Your task to perform on an android device: open the mobile data screen to see how much data has been used Image 0: 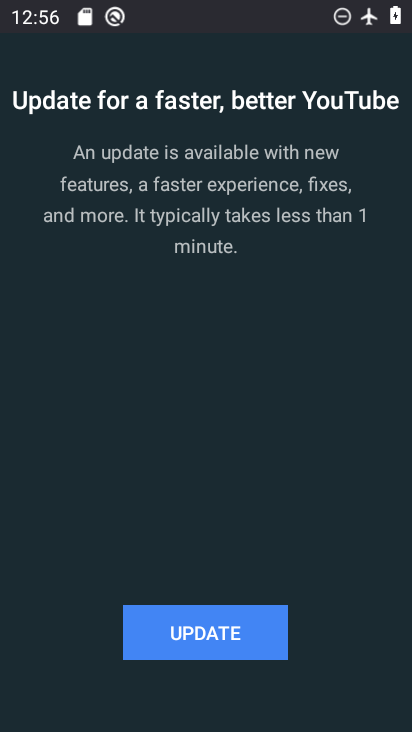
Step 0: press home button
Your task to perform on an android device: open the mobile data screen to see how much data has been used Image 1: 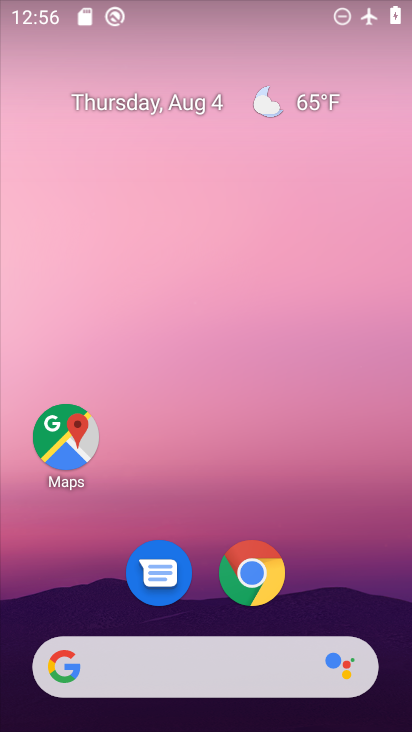
Step 1: drag from (357, 497) to (315, 89)
Your task to perform on an android device: open the mobile data screen to see how much data has been used Image 2: 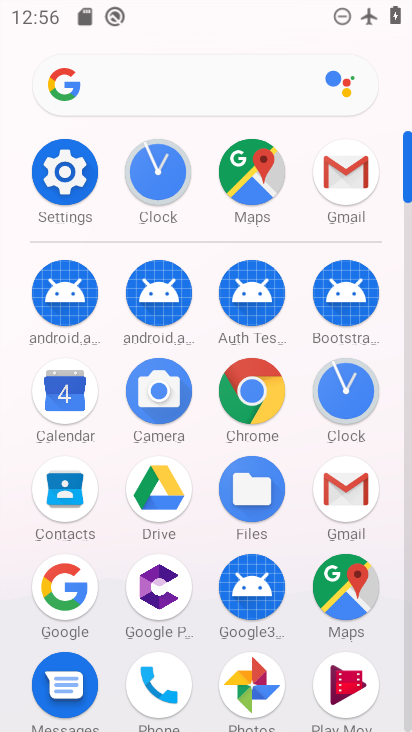
Step 2: click (64, 169)
Your task to perform on an android device: open the mobile data screen to see how much data has been used Image 3: 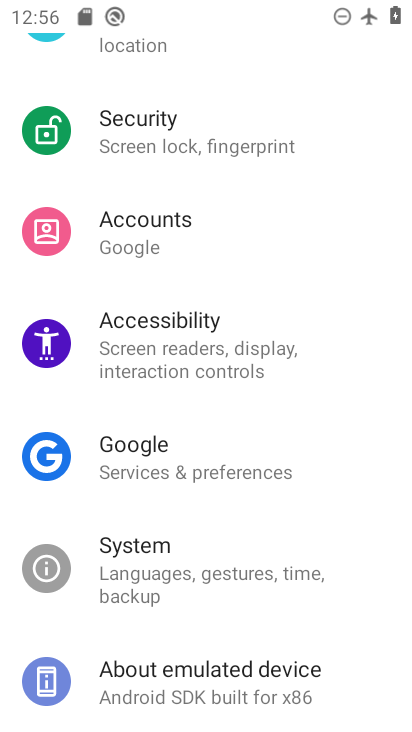
Step 3: drag from (284, 215) to (295, 643)
Your task to perform on an android device: open the mobile data screen to see how much data has been used Image 4: 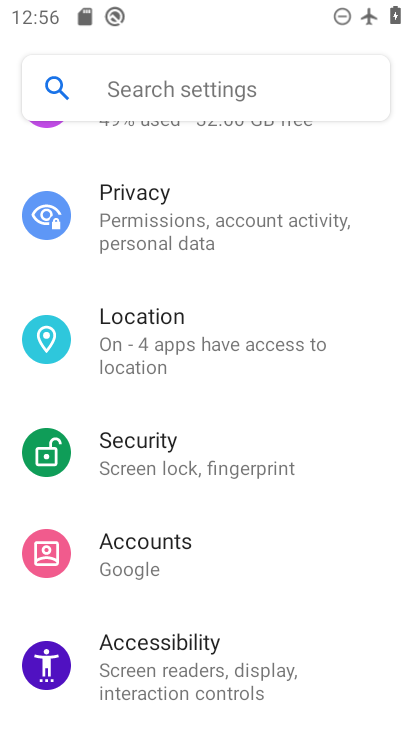
Step 4: drag from (275, 203) to (316, 634)
Your task to perform on an android device: open the mobile data screen to see how much data has been used Image 5: 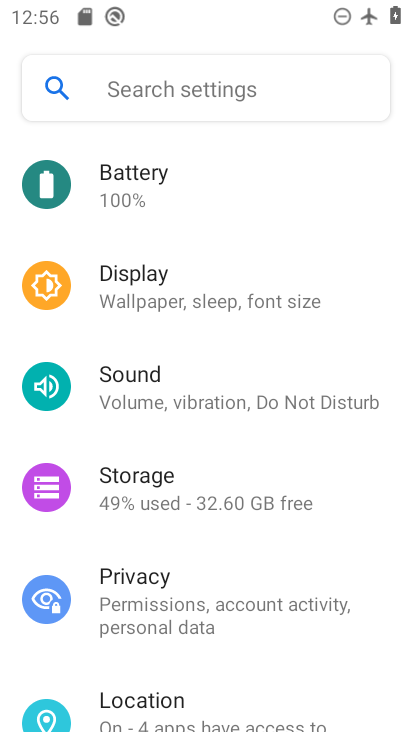
Step 5: drag from (293, 231) to (284, 600)
Your task to perform on an android device: open the mobile data screen to see how much data has been used Image 6: 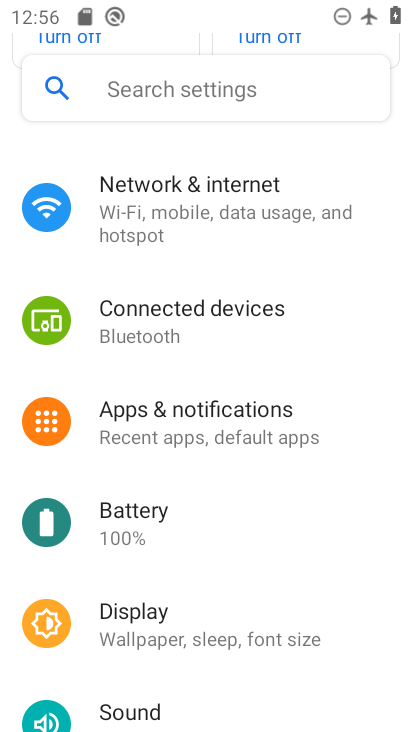
Step 6: click (254, 228)
Your task to perform on an android device: open the mobile data screen to see how much data has been used Image 7: 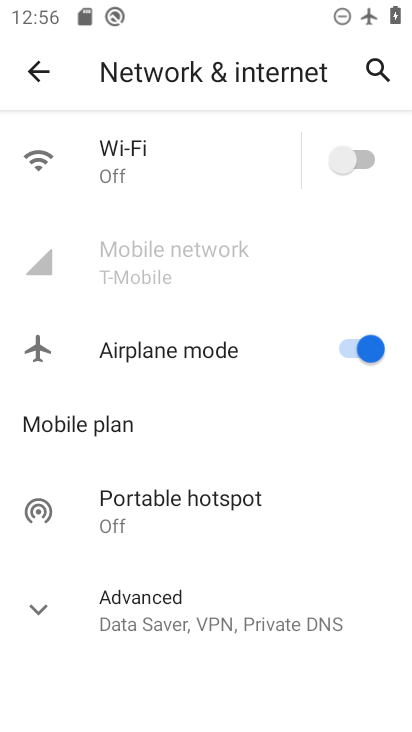
Step 7: drag from (300, 586) to (313, 244)
Your task to perform on an android device: open the mobile data screen to see how much data has been used Image 8: 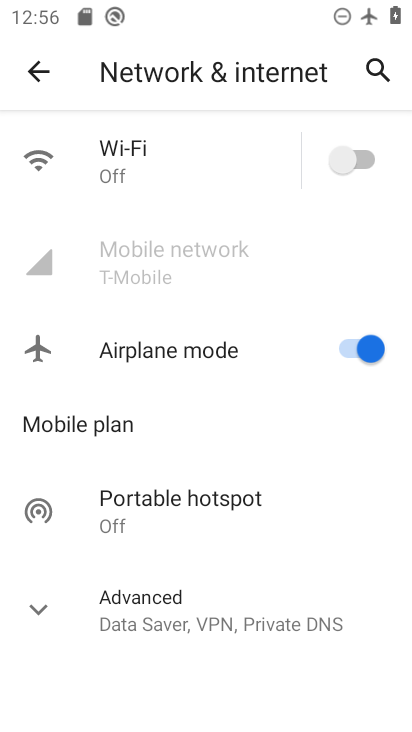
Step 8: click (227, 597)
Your task to perform on an android device: open the mobile data screen to see how much data has been used Image 9: 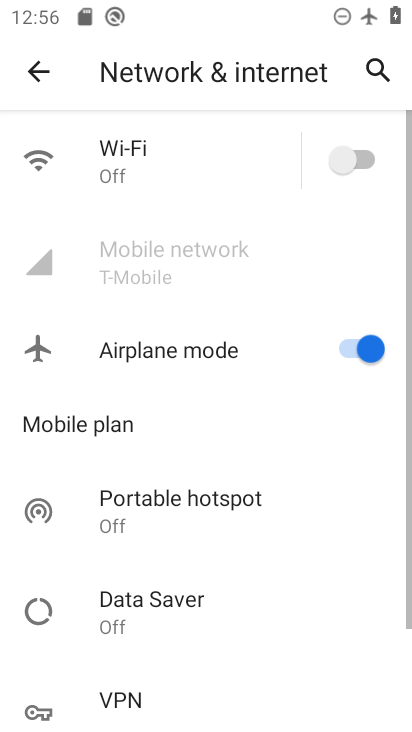
Step 9: task complete